Your task to perform on an android device: Show me popular games on the Play Store Image 0: 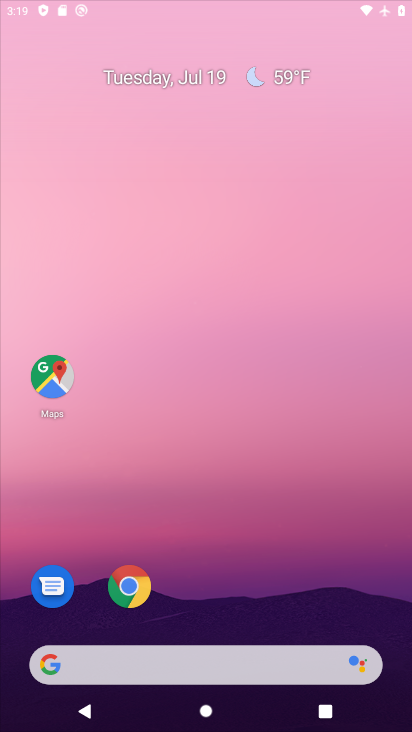
Step 0: press home button
Your task to perform on an android device: Show me popular games on the Play Store Image 1: 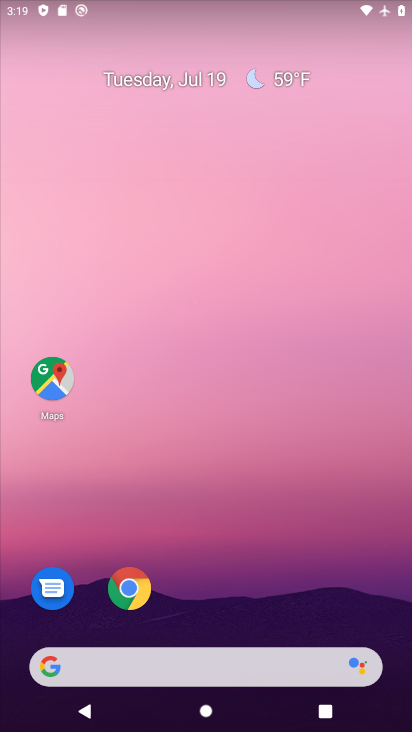
Step 1: drag from (189, 607) to (131, 39)
Your task to perform on an android device: Show me popular games on the Play Store Image 2: 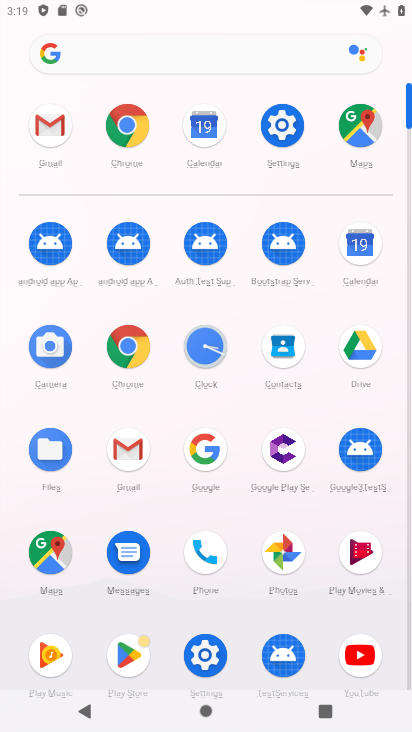
Step 2: click (127, 665)
Your task to perform on an android device: Show me popular games on the Play Store Image 3: 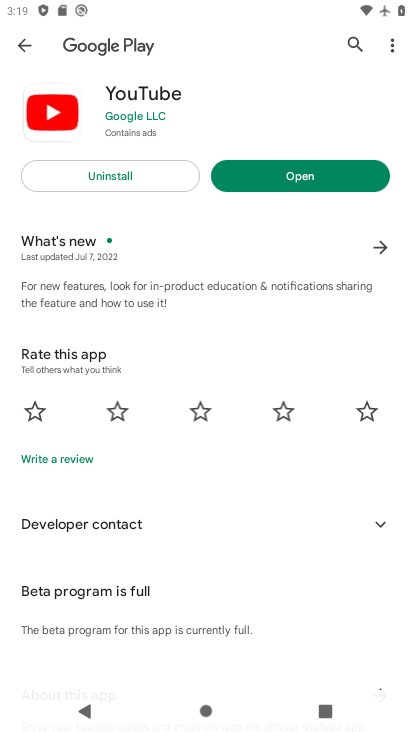
Step 3: press back button
Your task to perform on an android device: Show me popular games on the Play Store Image 4: 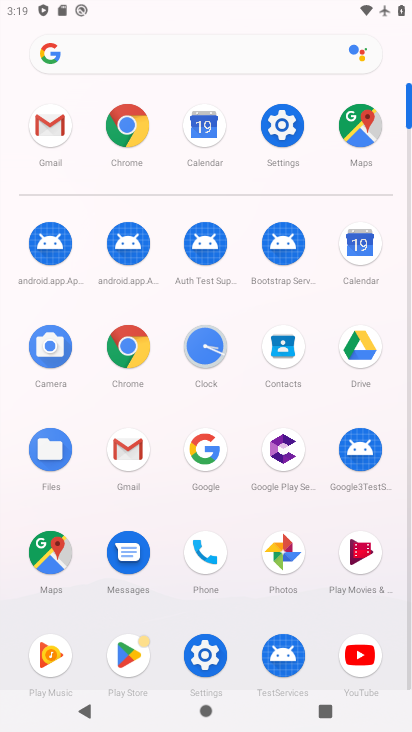
Step 4: click (135, 656)
Your task to perform on an android device: Show me popular games on the Play Store Image 5: 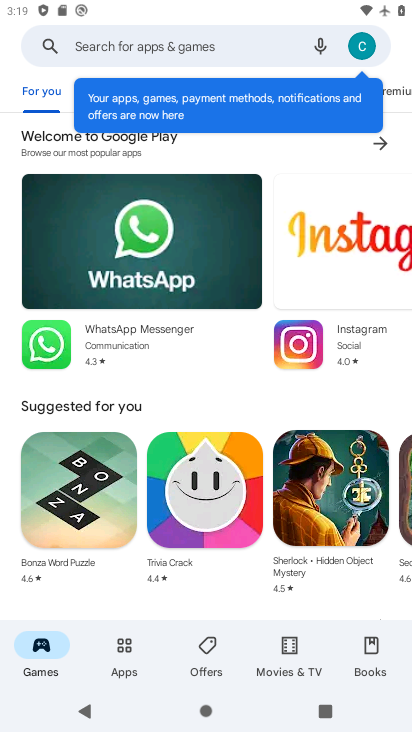
Step 5: click (46, 645)
Your task to perform on an android device: Show me popular games on the Play Store Image 6: 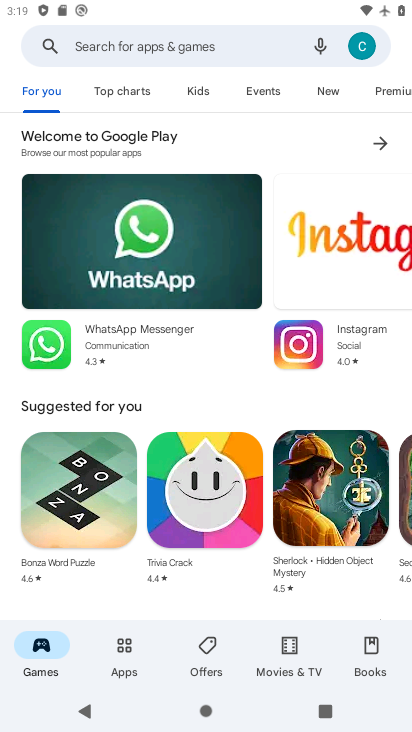
Step 6: drag from (379, 96) to (192, 114)
Your task to perform on an android device: Show me popular games on the Play Store Image 7: 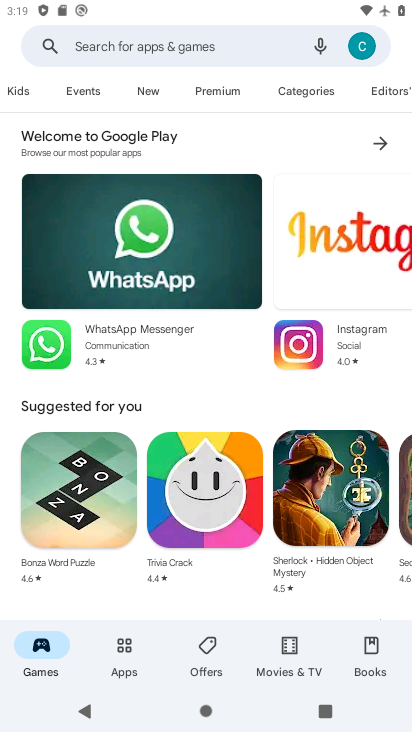
Step 7: click (301, 91)
Your task to perform on an android device: Show me popular games on the Play Store Image 8: 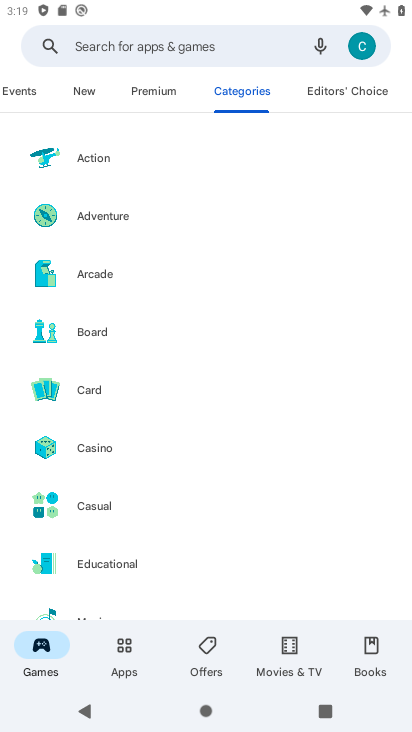
Step 8: task complete